Your task to perform on an android device: change the upload size in google photos Image 0: 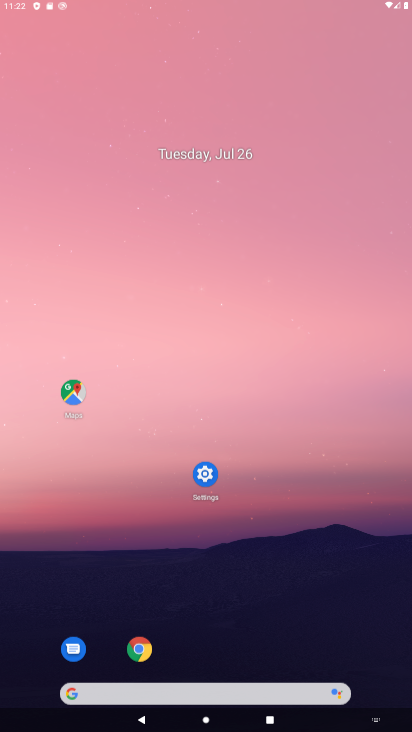
Step 0: drag from (278, 415) to (275, 296)
Your task to perform on an android device: change the upload size in google photos Image 1: 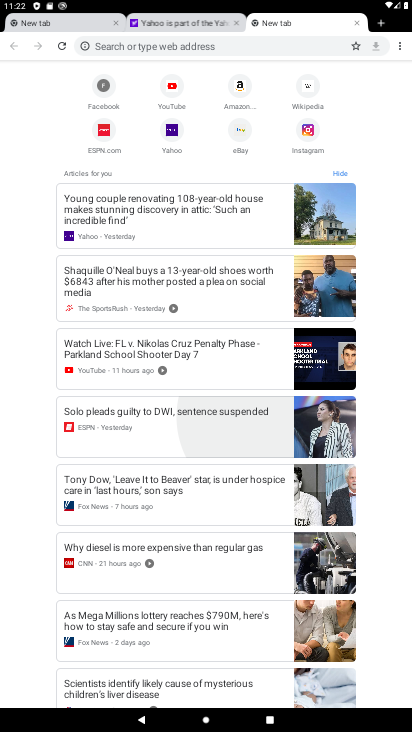
Step 1: click (268, 264)
Your task to perform on an android device: change the upload size in google photos Image 2: 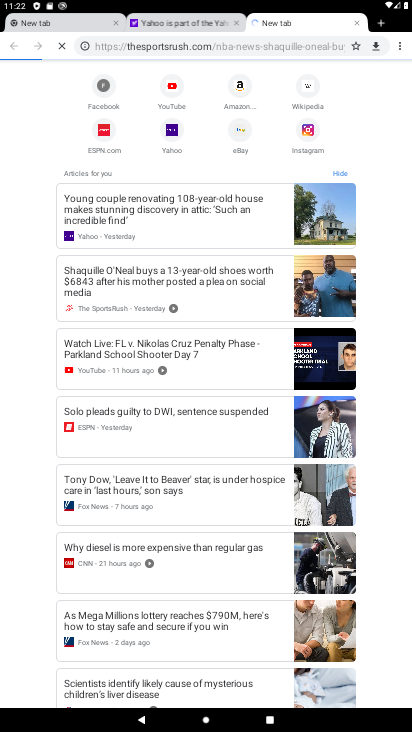
Step 2: click (159, 49)
Your task to perform on an android device: change the upload size in google photos Image 3: 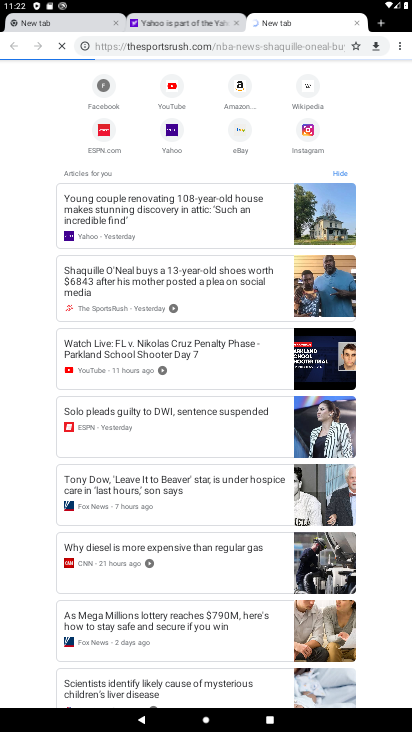
Step 3: click (158, 52)
Your task to perform on an android device: change the upload size in google photos Image 4: 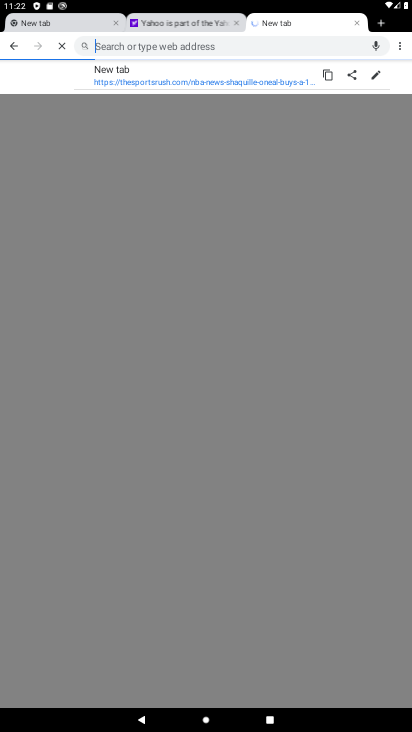
Step 4: click (158, 57)
Your task to perform on an android device: change the upload size in google photos Image 5: 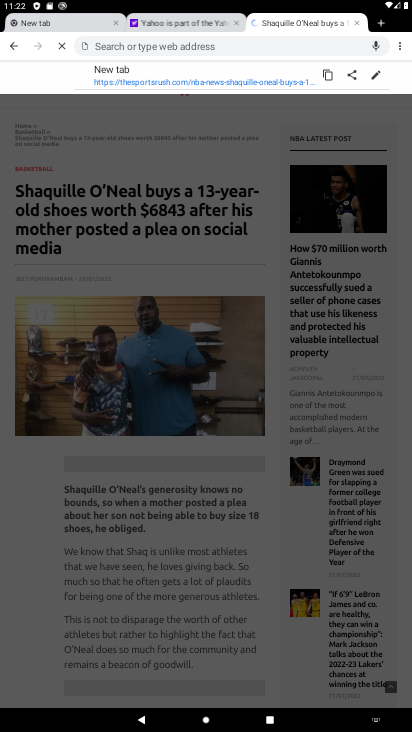
Step 5: type "weather"
Your task to perform on an android device: change the upload size in google photos Image 6: 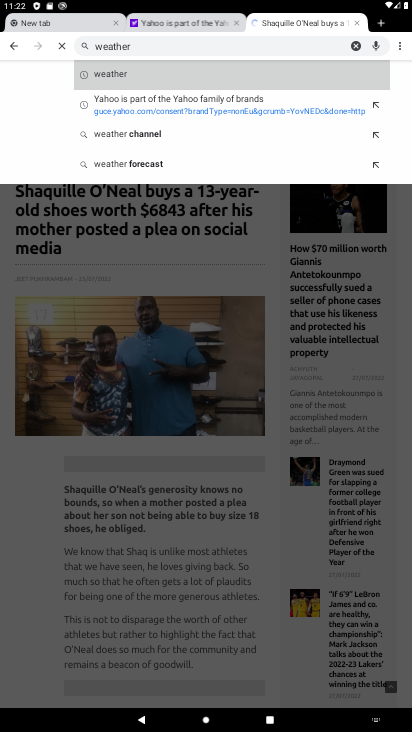
Step 6: click (134, 44)
Your task to perform on an android device: change the upload size in google photos Image 7: 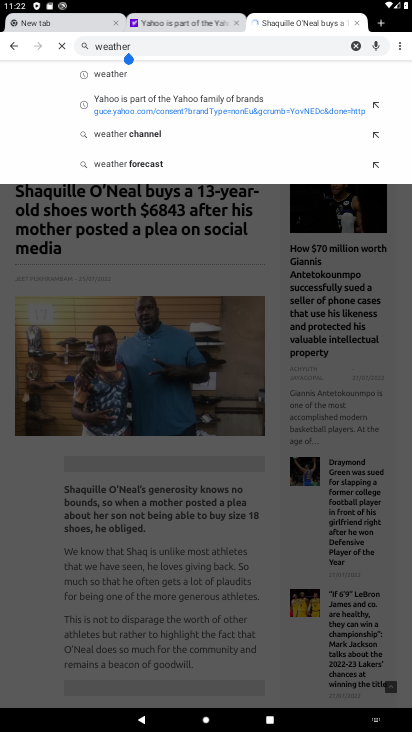
Step 7: click (129, 69)
Your task to perform on an android device: change the upload size in google photos Image 8: 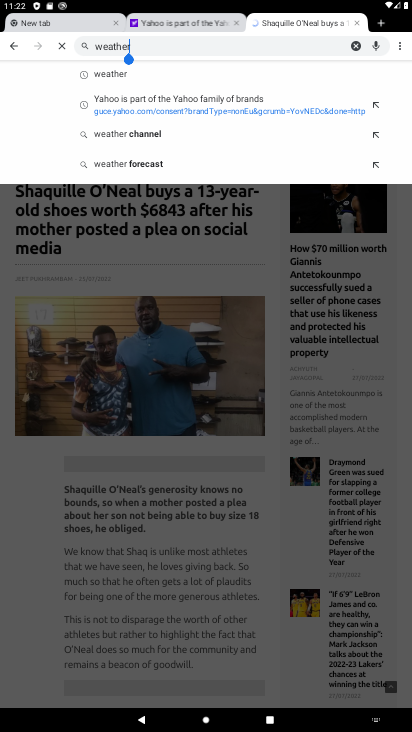
Step 8: click (131, 68)
Your task to perform on an android device: change the upload size in google photos Image 9: 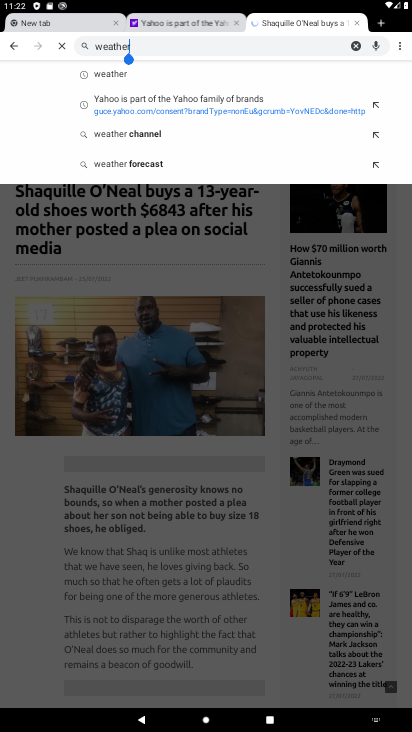
Step 9: click (114, 74)
Your task to perform on an android device: change the upload size in google photos Image 10: 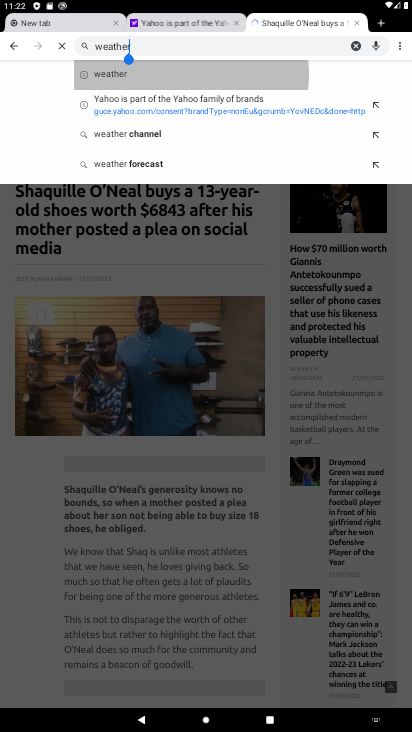
Step 10: click (114, 74)
Your task to perform on an android device: change the upload size in google photos Image 11: 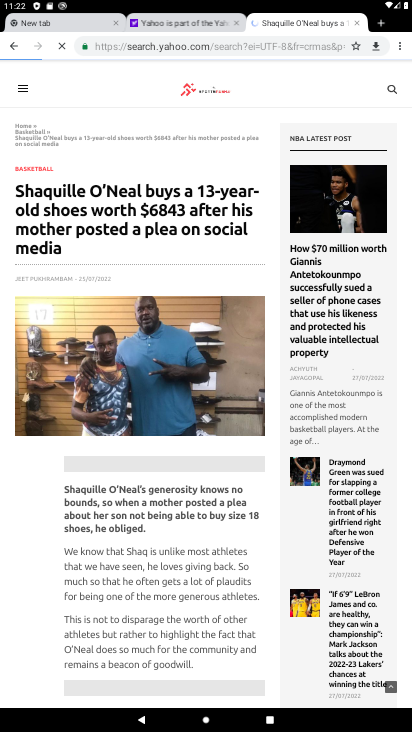
Step 11: click (115, 74)
Your task to perform on an android device: change the upload size in google photos Image 12: 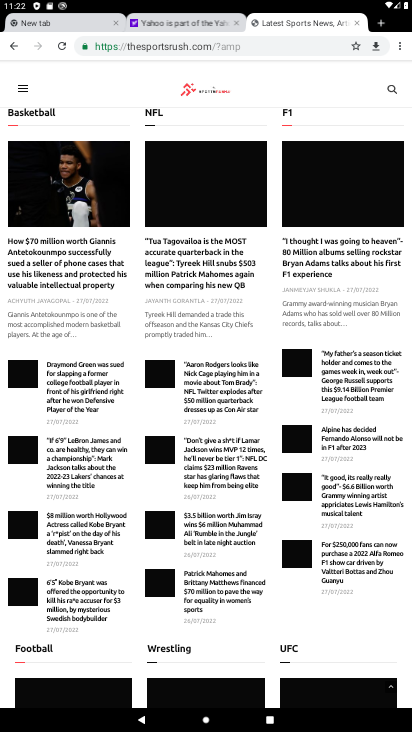
Step 12: task complete